Your task to perform on an android device: Go to internet settings Image 0: 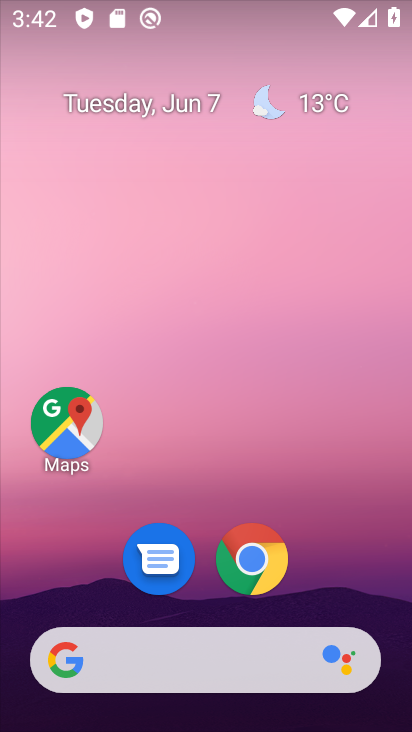
Step 0: drag from (233, 635) to (259, 227)
Your task to perform on an android device: Go to internet settings Image 1: 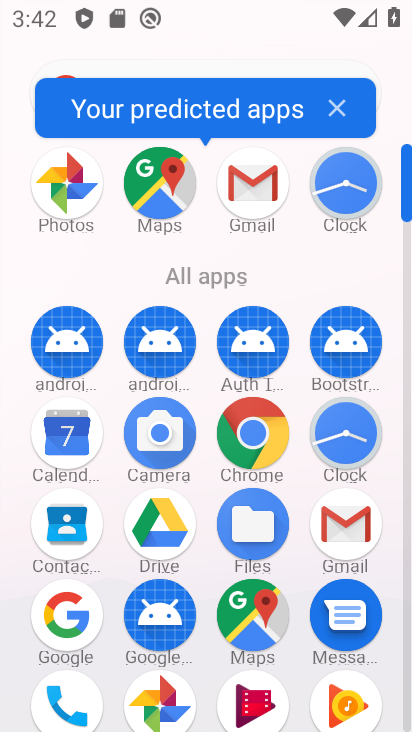
Step 1: drag from (211, 615) to (192, 163)
Your task to perform on an android device: Go to internet settings Image 2: 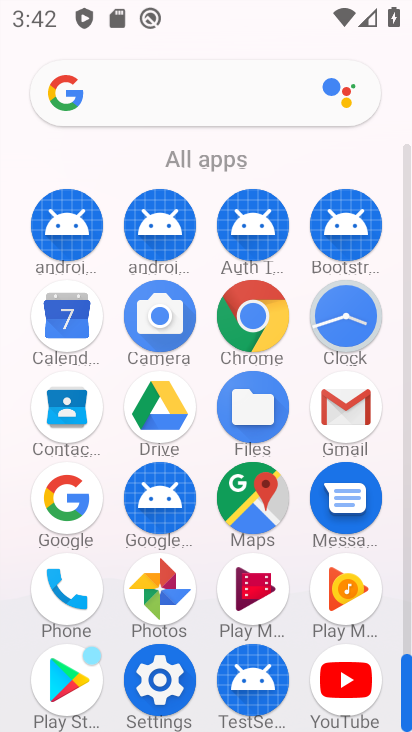
Step 2: click (157, 669)
Your task to perform on an android device: Go to internet settings Image 3: 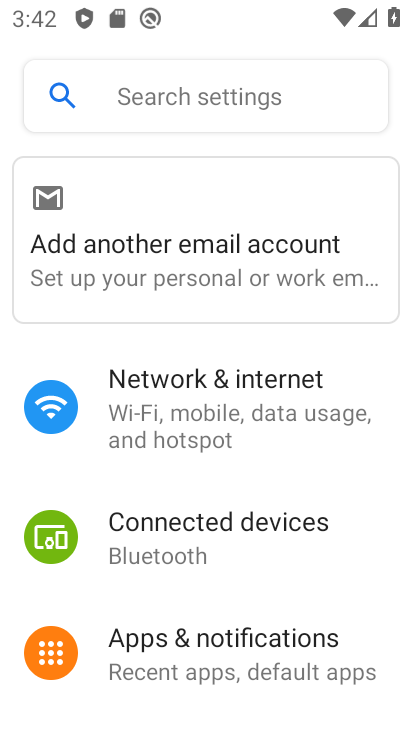
Step 3: click (270, 404)
Your task to perform on an android device: Go to internet settings Image 4: 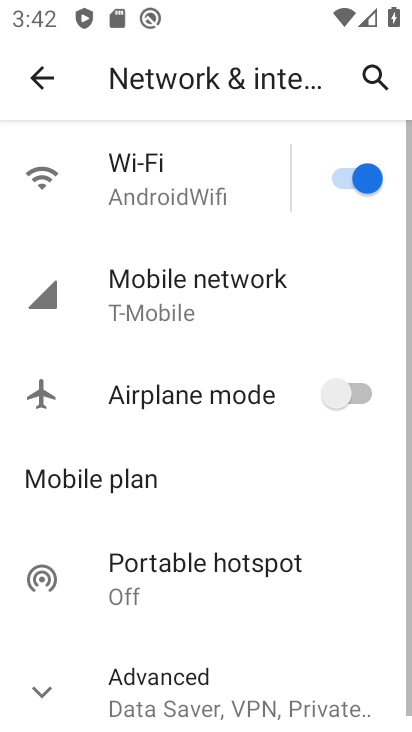
Step 4: click (204, 685)
Your task to perform on an android device: Go to internet settings Image 5: 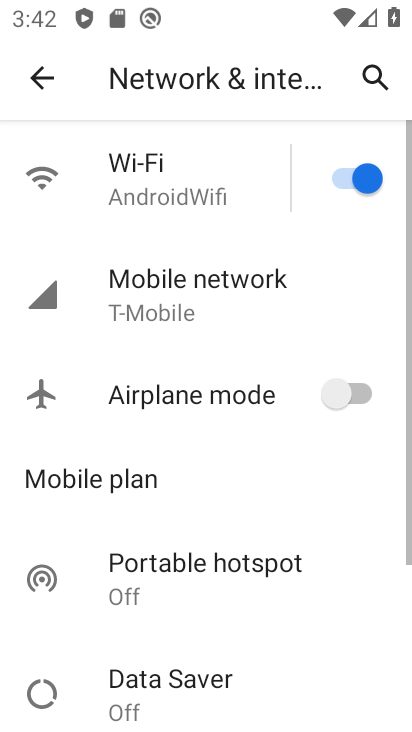
Step 5: task complete